Your task to perform on an android device: Do I have any events this weekend? Image 0: 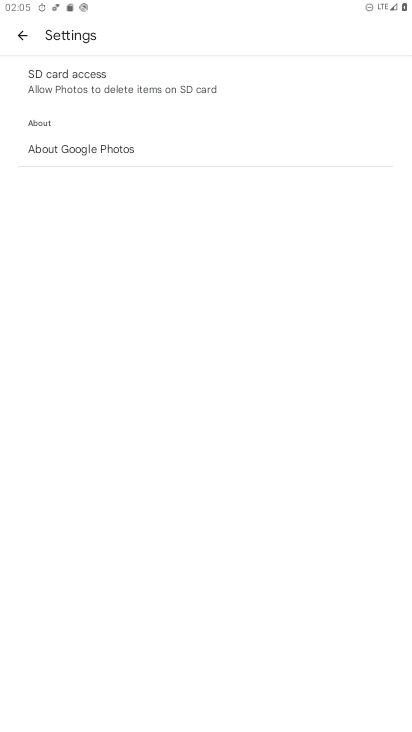
Step 0: press home button
Your task to perform on an android device: Do I have any events this weekend? Image 1: 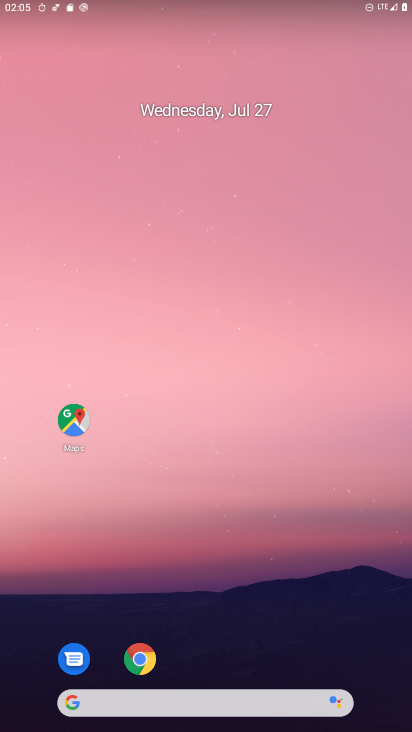
Step 1: drag from (267, 571) to (224, 78)
Your task to perform on an android device: Do I have any events this weekend? Image 2: 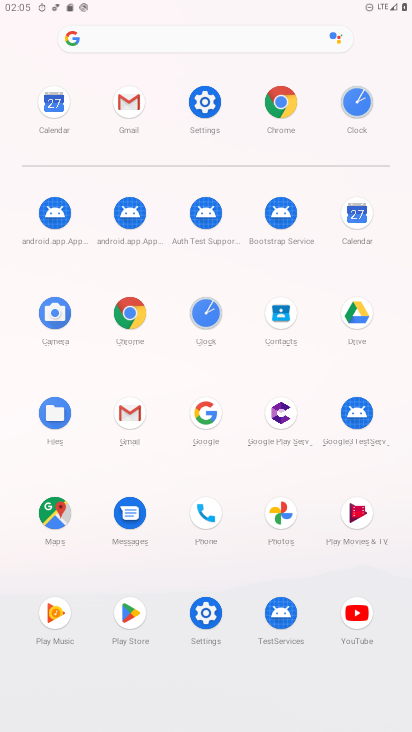
Step 2: click (359, 220)
Your task to perform on an android device: Do I have any events this weekend? Image 3: 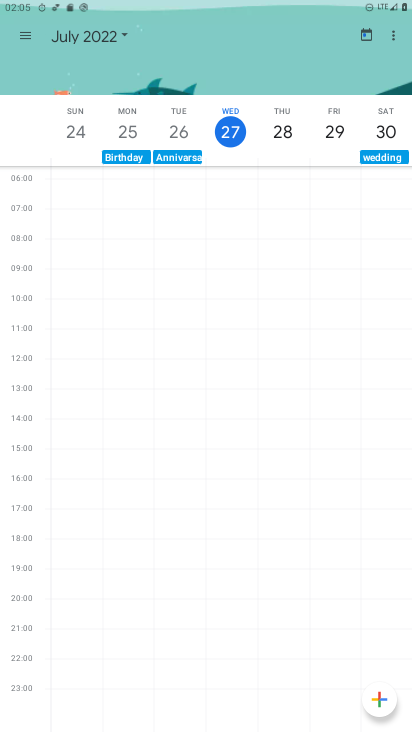
Step 3: click (387, 131)
Your task to perform on an android device: Do I have any events this weekend? Image 4: 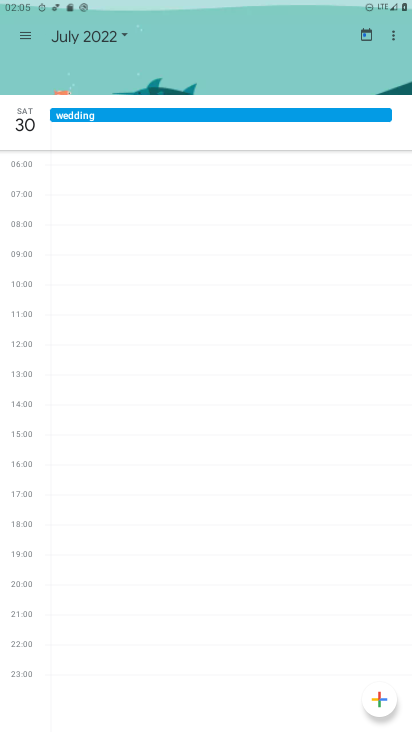
Step 4: task complete